Your task to perform on an android device: Turn on the flashlight Image 0: 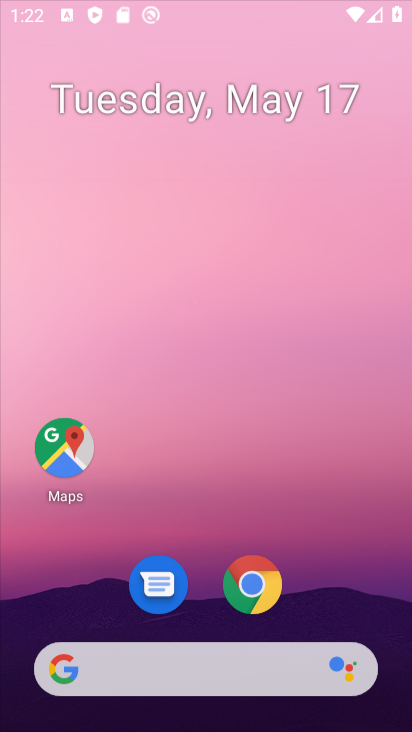
Step 0: drag from (133, 6) to (248, 61)
Your task to perform on an android device: Turn on the flashlight Image 1: 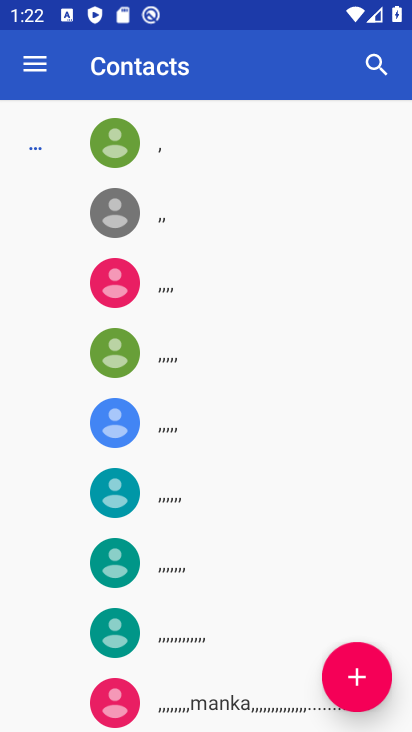
Step 1: press home button
Your task to perform on an android device: Turn on the flashlight Image 2: 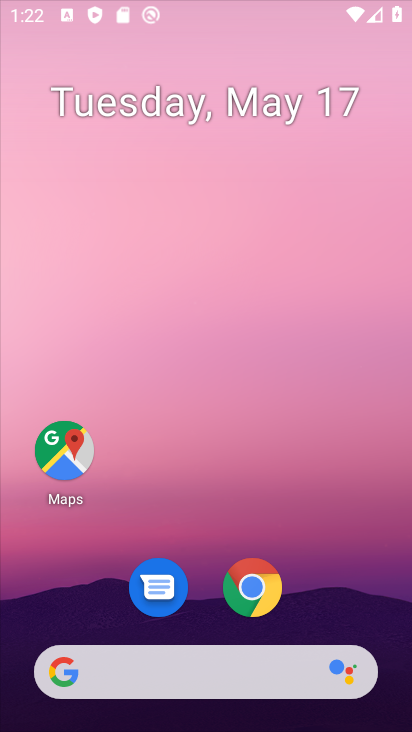
Step 2: drag from (182, 645) to (182, 111)
Your task to perform on an android device: Turn on the flashlight Image 3: 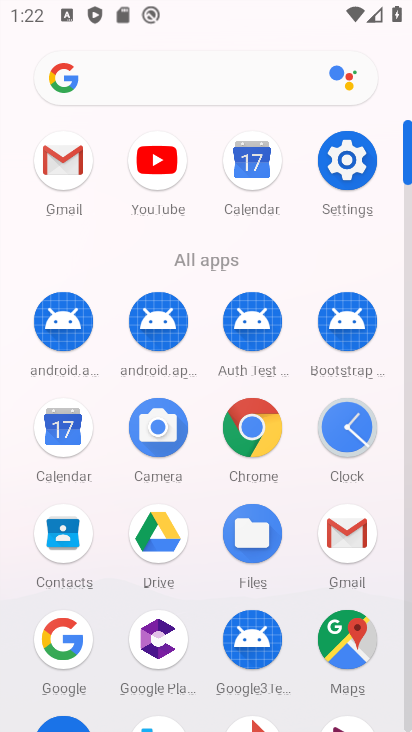
Step 3: click (346, 153)
Your task to perform on an android device: Turn on the flashlight Image 4: 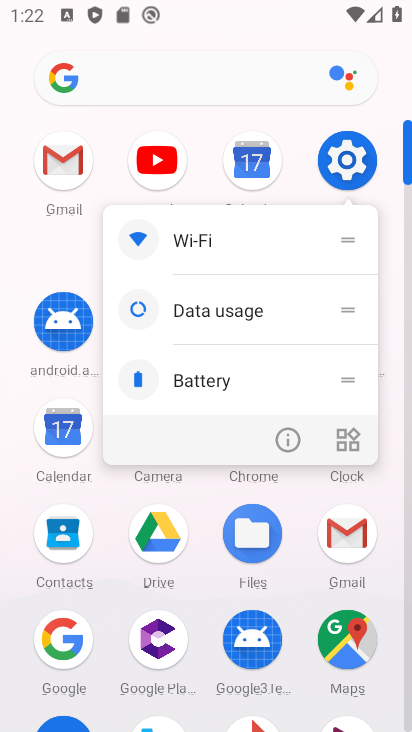
Step 4: click (274, 433)
Your task to perform on an android device: Turn on the flashlight Image 5: 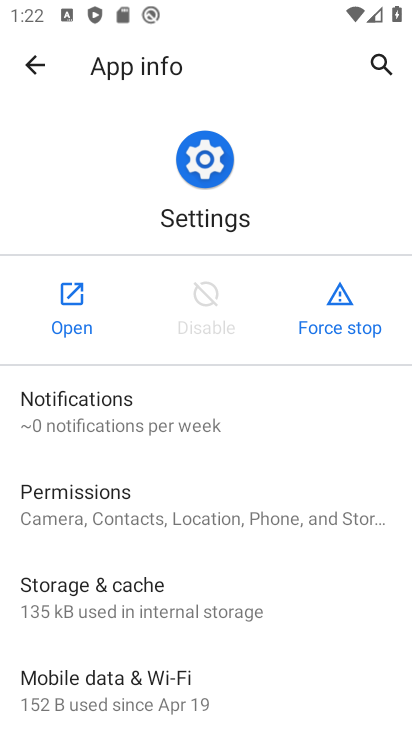
Step 5: click (76, 292)
Your task to perform on an android device: Turn on the flashlight Image 6: 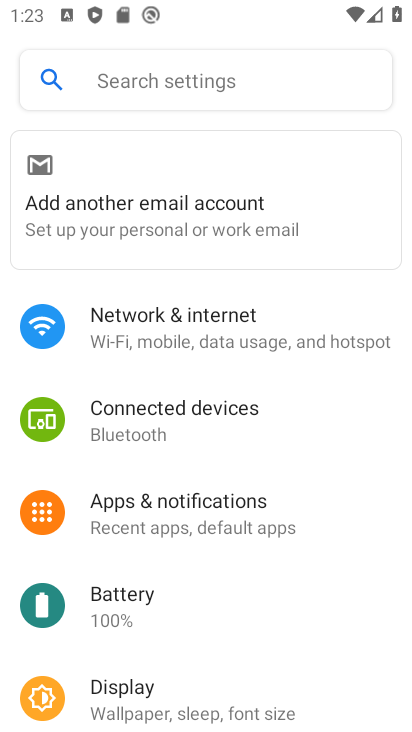
Step 6: click (217, 98)
Your task to perform on an android device: Turn on the flashlight Image 7: 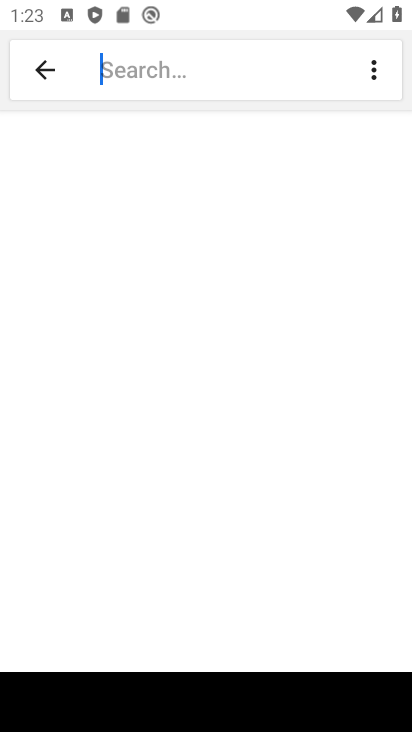
Step 7: type "flashlight"
Your task to perform on an android device: Turn on the flashlight Image 8: 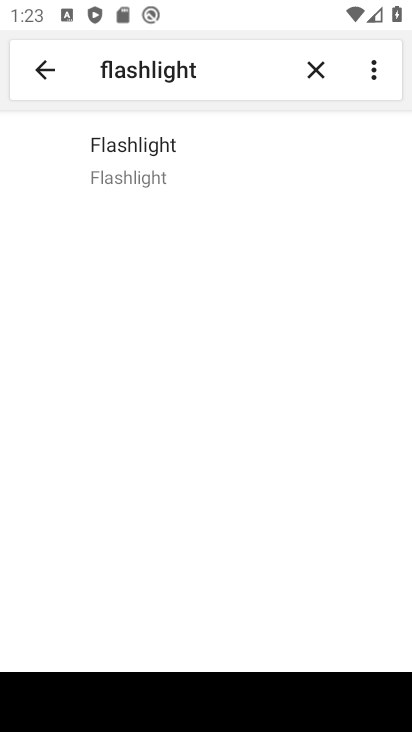
Step 8: click (199, 152)
Your task to perform on an android device: Turn on the flashlight Image 9: 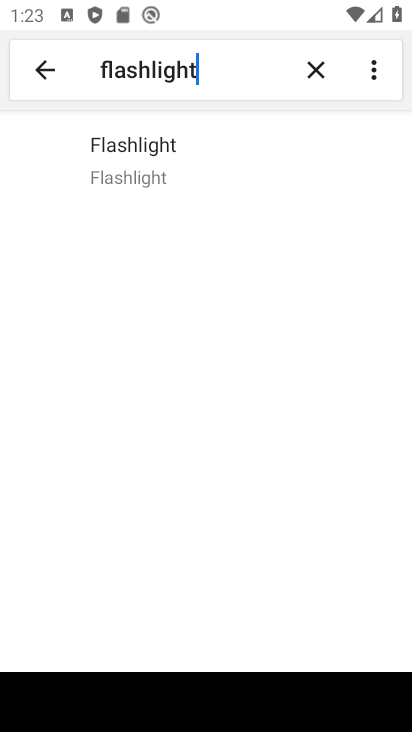
Step 9: click (201, 158)
Your task to perform on an android device: Turn on the flashlight Image 10: 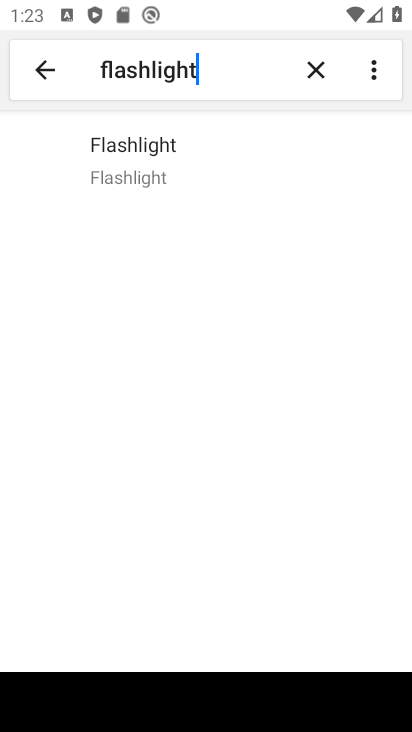
Step 10: task complete